Your task to perform on an android device: Open calendar and show me the second week of next month Image 0: 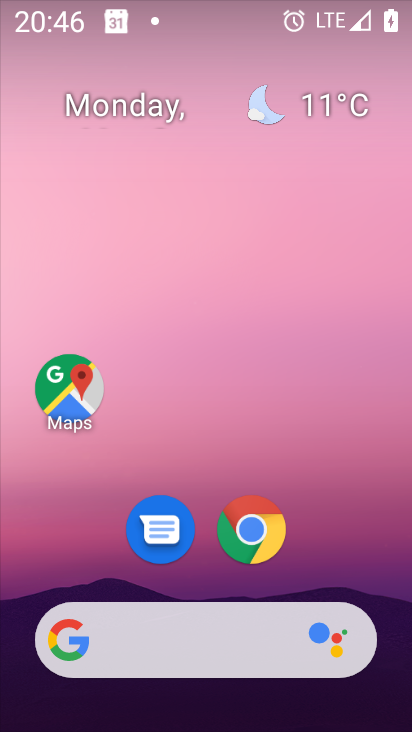
Step 0: drag from (191, 626) to (203, 160)
Your task to perform on an android device: Open calendar and show me the second week of next month Image 1: 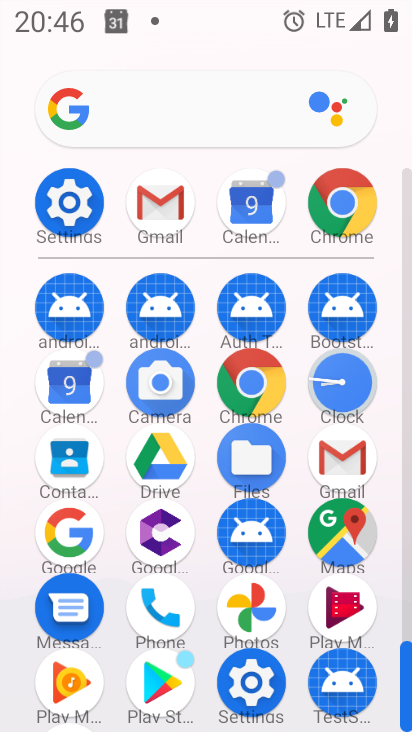
Step 1: click (81, 383)
Your task to perform on an android device: Open calendar and show me the second week of next month Image 2: 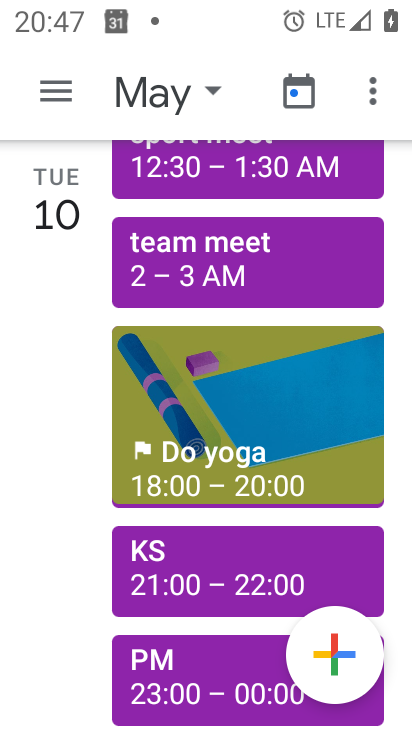
Step 2: click (65, 87)
Your task to perform on an android device: Open calendar and show me the second week of next month Image 3: 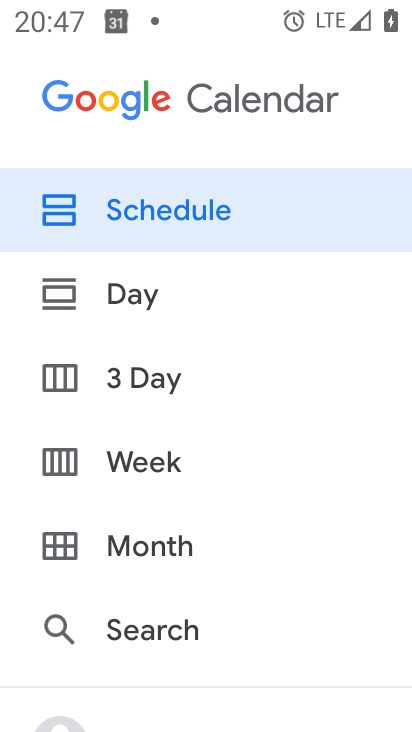
Step 3: click (173, 551)
Your task to perform on an android device: Open calendar and show me the second week of next month Image 4: 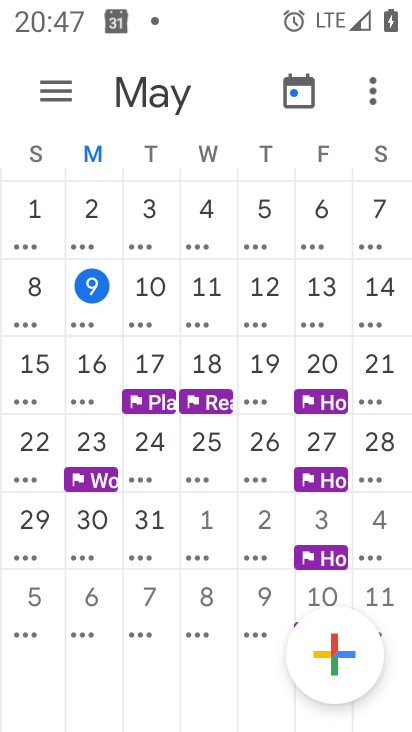
Step 4: task complete